Your task to perform on an android device: Open calendar and show me the first week of next month Image 0: 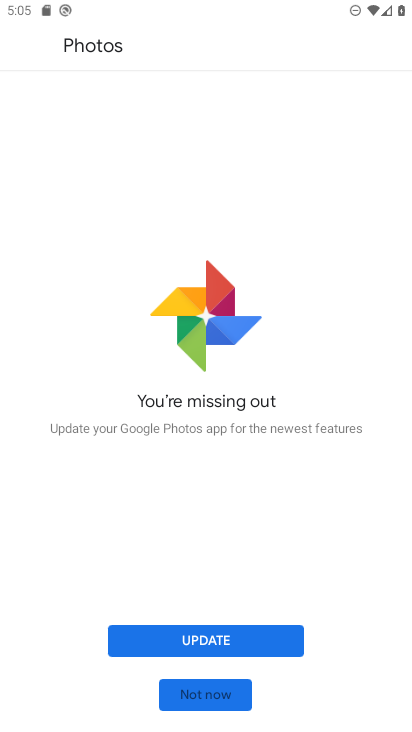
Step 0: press home button
Your task to perform on an android device: Open calendar and show me the first week of next month Image 1: 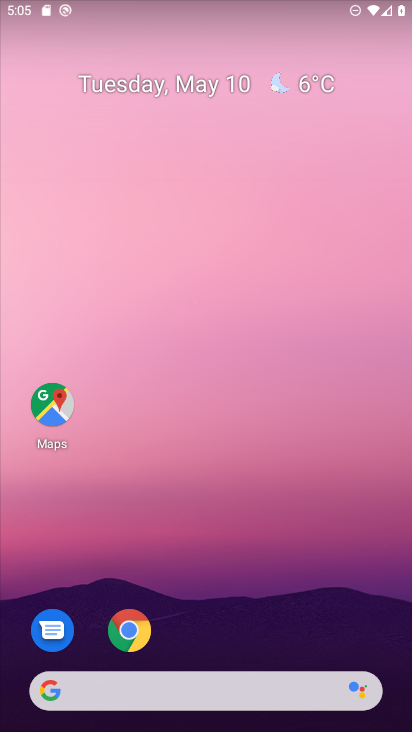
Step 1: drag from (284, 556) to (217, 146)
Your task to perform on an android device: Open calendar and show me the first week of next month Image 2: 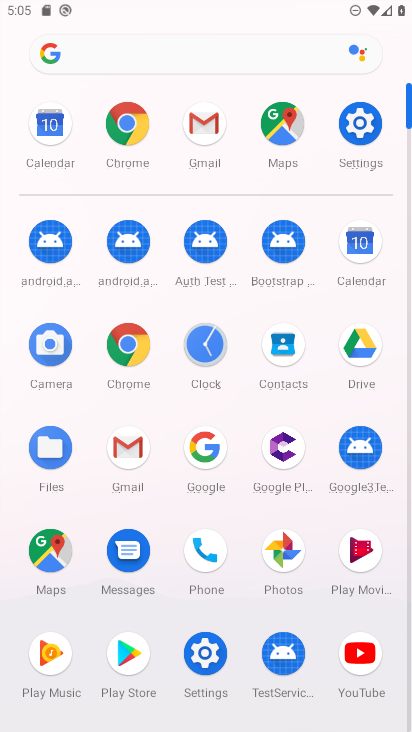
Step 2: click (51, 137)
Your task to perform on an android device: Open calendar and show me the first week of next month Image 3: 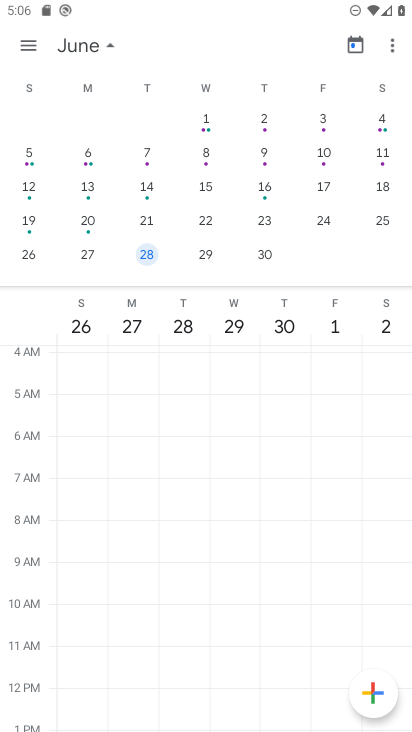
Step 3: click (264, 117)
Your task to perform on an android device: Open calendar and show me the first week of next month Image 4: 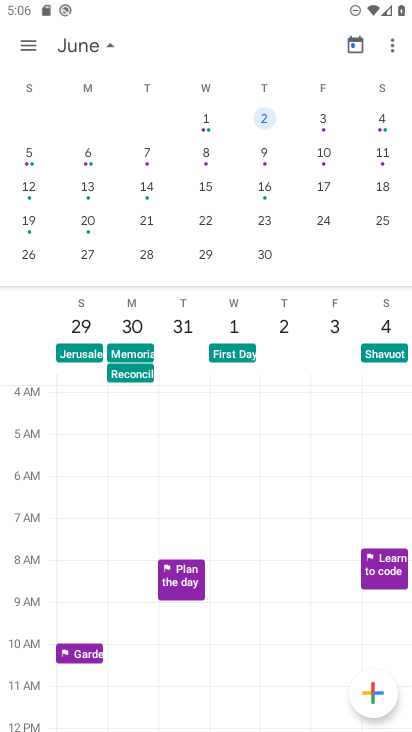
Step 4: task complete